Your task to perform on an android device: Go to internet settings Image 0: 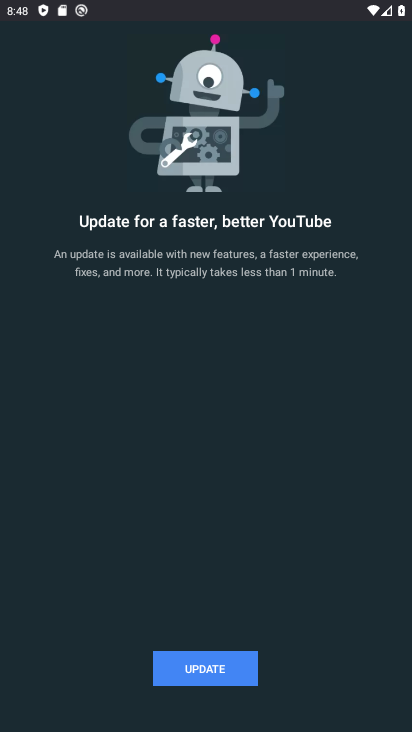
Step 0: press home button
Your task to perform on an android device: Go to internet settings Image 1: 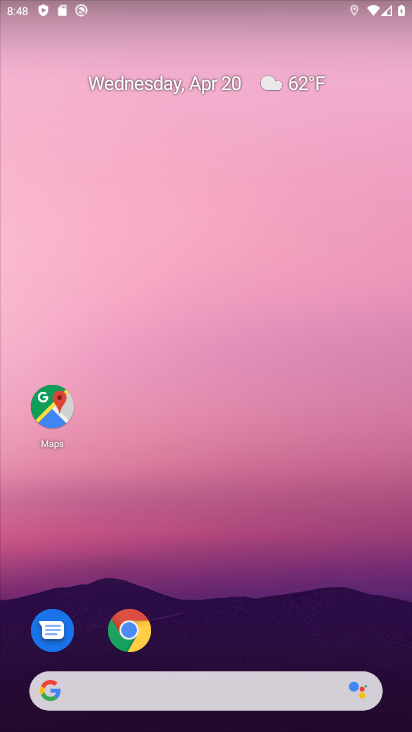
Step 1: drag from (228, 635) to (247, 22)
Your task to perform on an android device: Go to internet settings Image 2: 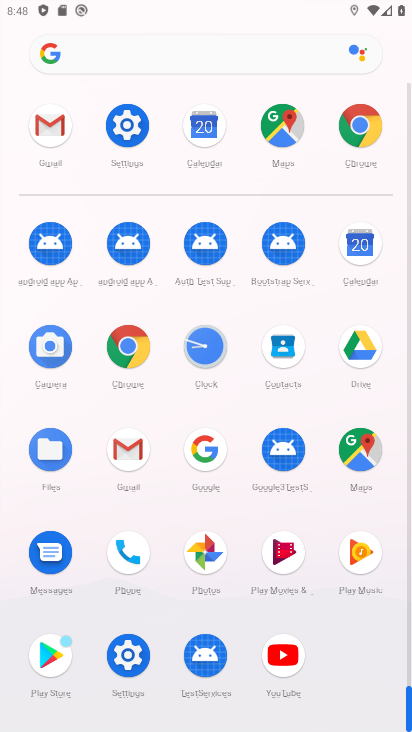
Step 2: click (114, 140)
Your task to perform on an android device: Go to internet settings Image 3: 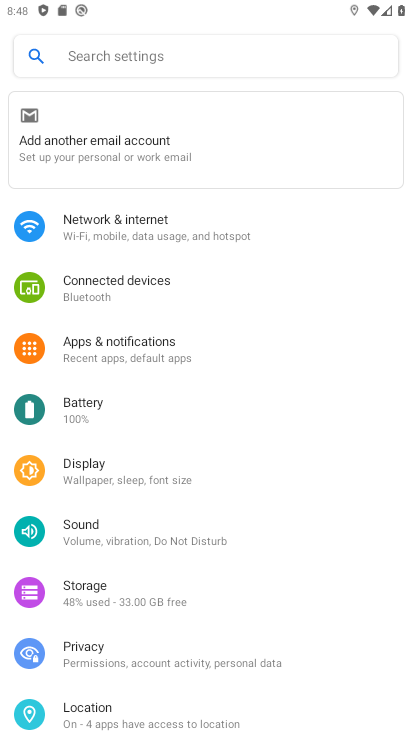
Step 3: click (108, 233)
Your task to perform on an android device: Go to internet settings Image 4: 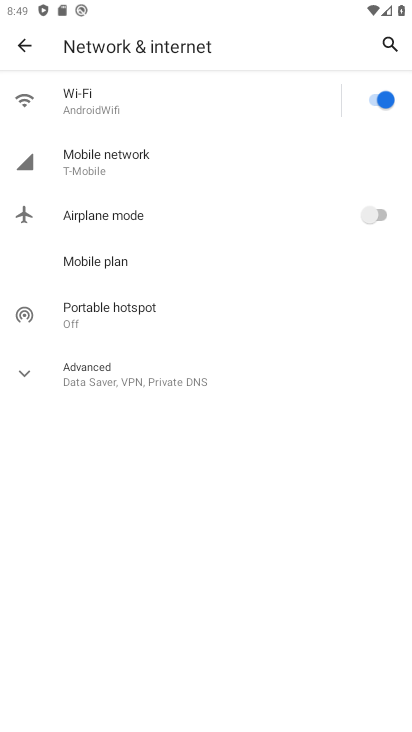
Step 4: task complete